Your task to perform on an android device: Open the calendar app, open the side menu, and click the "Day" option Image 0: 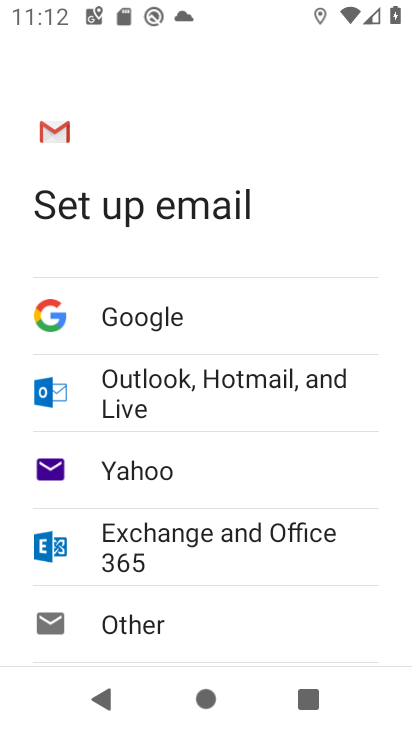
Step 0: press home button
Your task to perform on an android device: Open the calendar app, open the side menu, and click the "Day" option Image 1: 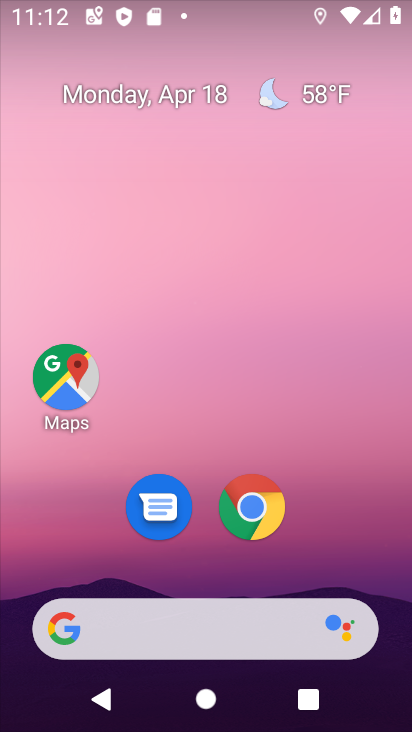
Step 1: drag from (189, 550) to (285, 13)
Your task to perform on an android device: Open the calendar app, open the side menu, and click the "Day" option Image 2: 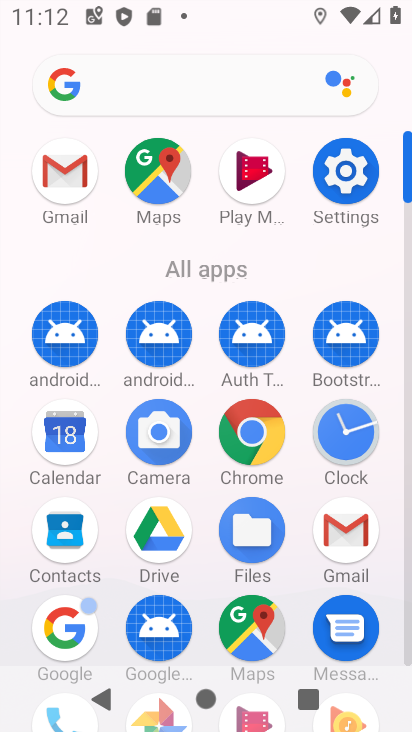
Step 2: click (54, 445)
Your task to perform on an android device: Open the calendar app, open the side menu, and click the "Day" option Image 3: 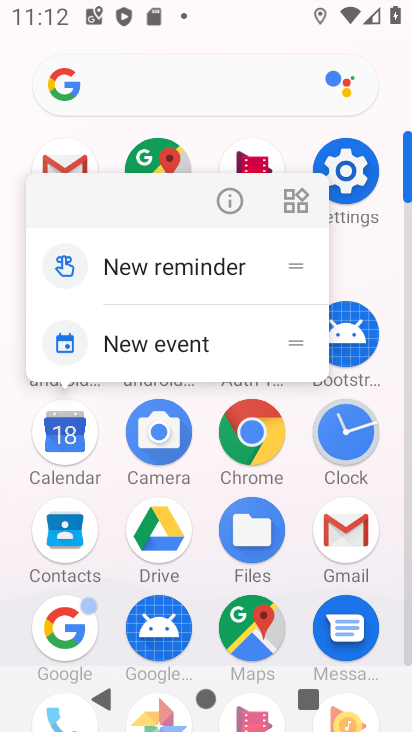
Step 3: click (51, 450)
Your task to perform on an android device: Open the calendar app, open the side menu, and click the "Day" option Image 4: 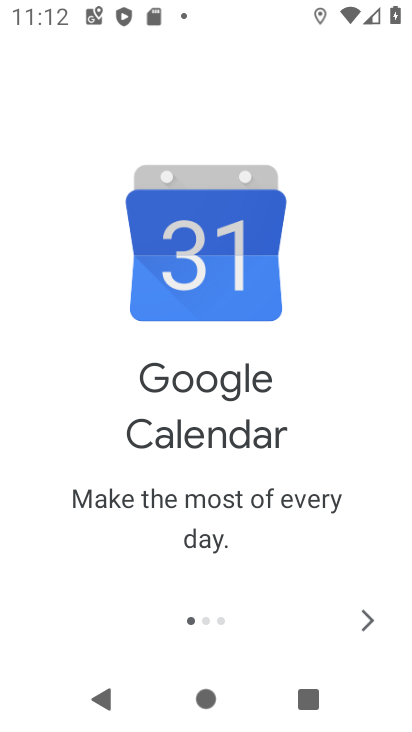
Step 4: click (360, 615)
Your task to perform on an android device: Open the calendar app, open the side menu, and click the "Day" option Image 5: 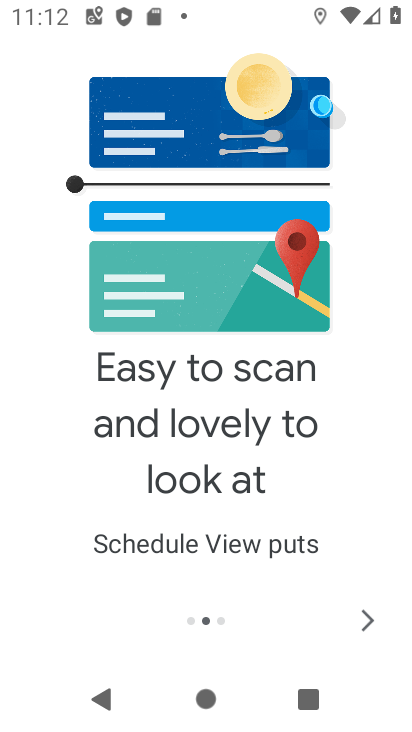
Step 5: click (360, 615)
Your task to perform on an android device: Open the calendar app, open the side menu, and click the "Day" option Image 6: 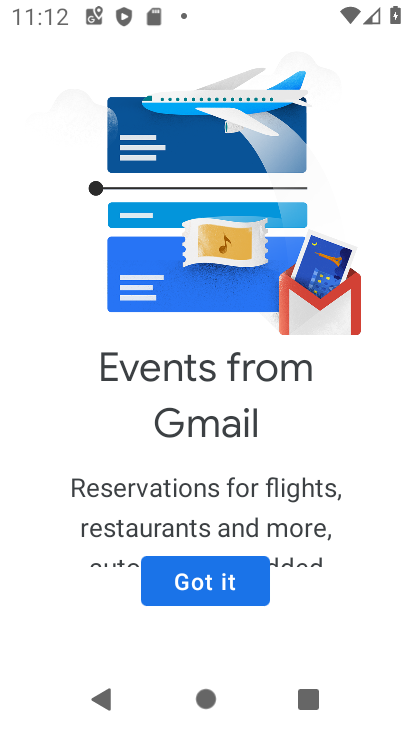
Step 6: click (228, 574)
Your task to perform on an android device: Open the calendar app, open the side menu, and click the "Day" option Image 7: 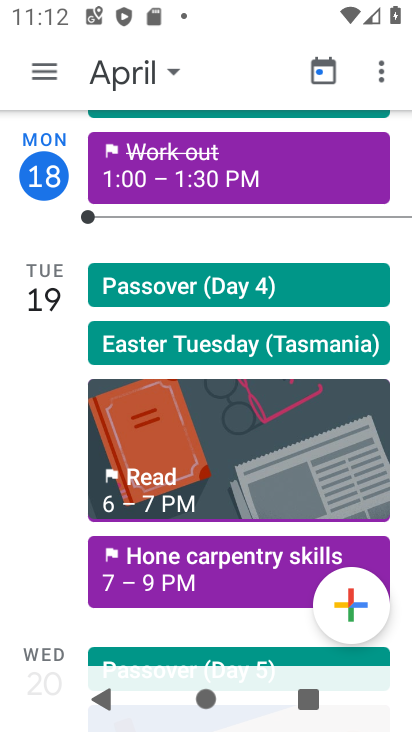
Step 7: click (51, 78)
Your task to perform on an android device: Open the calendar app, open the side menu, and click the "Day" option Image 8: 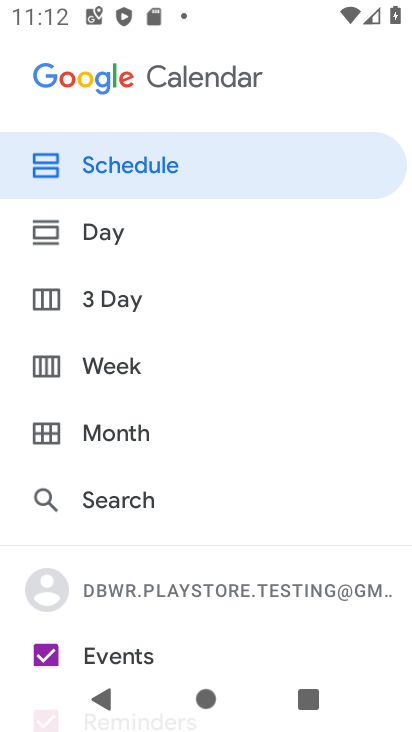
Step 8: click (108, 234)
Your task to perform on an android device: Open the calendar app, open the side menu, and click the "Day" option Image 9: 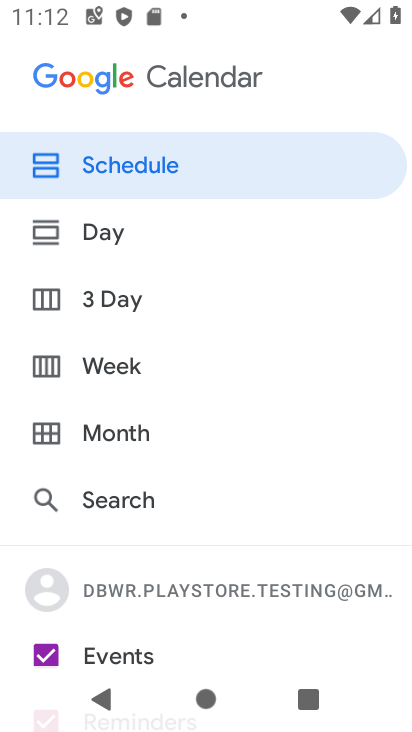
Step 9: click (112, 231)
Your task to perform on an android device: Open the calendar app, open the side menu, and click the "Day" option Image 10: 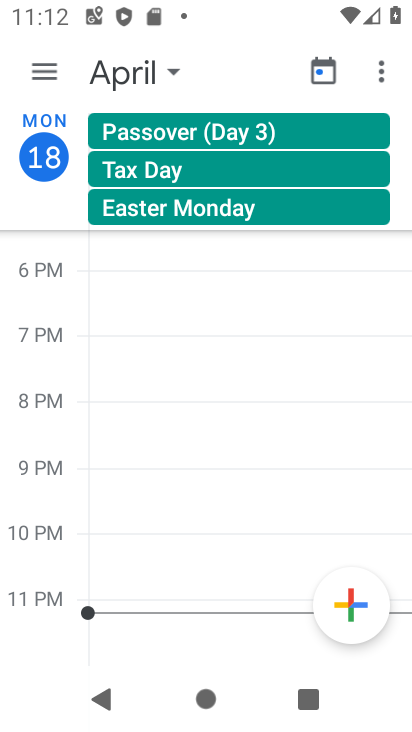
Step 10: task complete